Your task to perform on an android device: choose inbox layout in the gmail app Image 0: 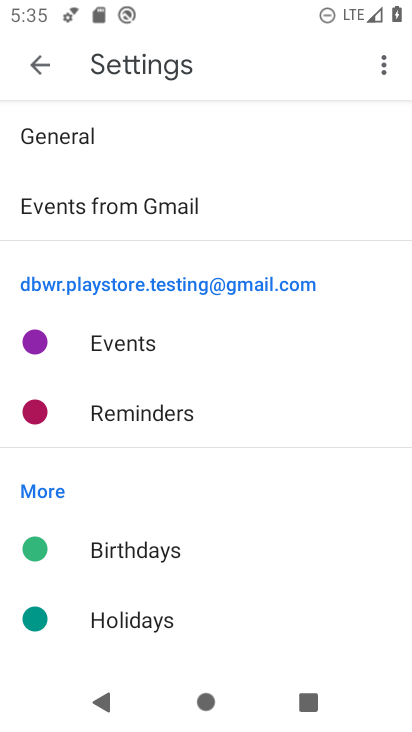
Step 0: press home button
Your task to perform on an android device: choose inbox layout in the gmail app Image 1: 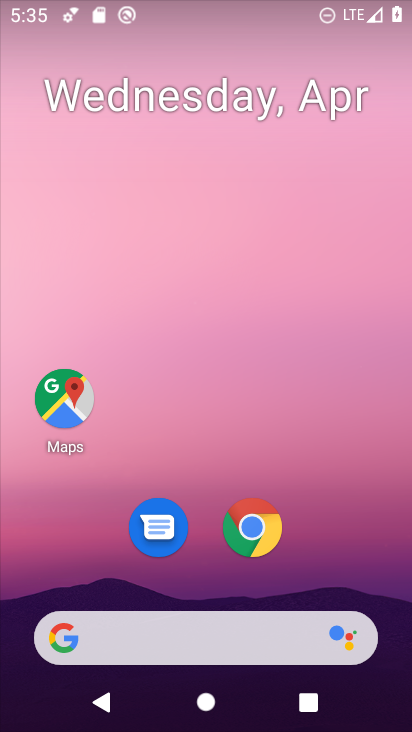
Step 1: drag from (328, 458) to (303, 4)
Your task to perform on an android device: choose inbox layout in the gmail app Image 2: 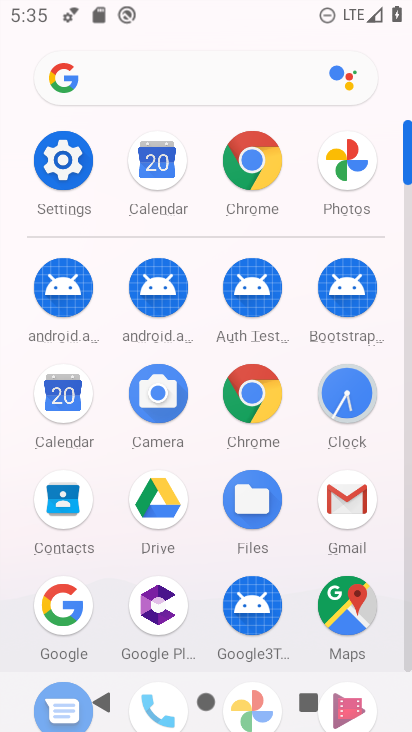
Step 2: click (345, 511)
Your task to perform on an android device: choose inbox layout in the gmail app Image 3: 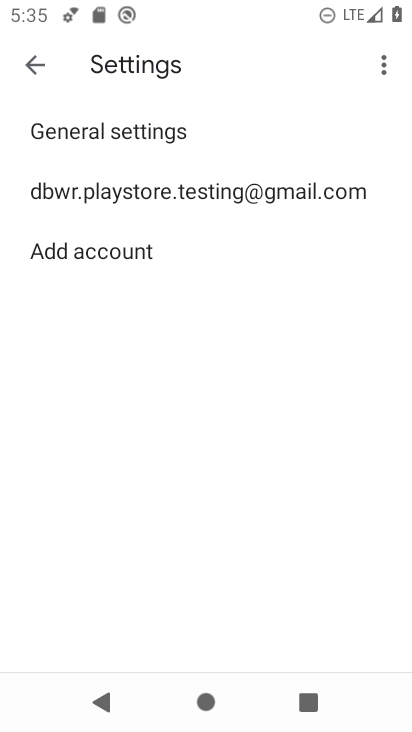
Step 3: click (102, 200)
Your task to perform on an android device: choose inbox layout in the gmail app Image 4: 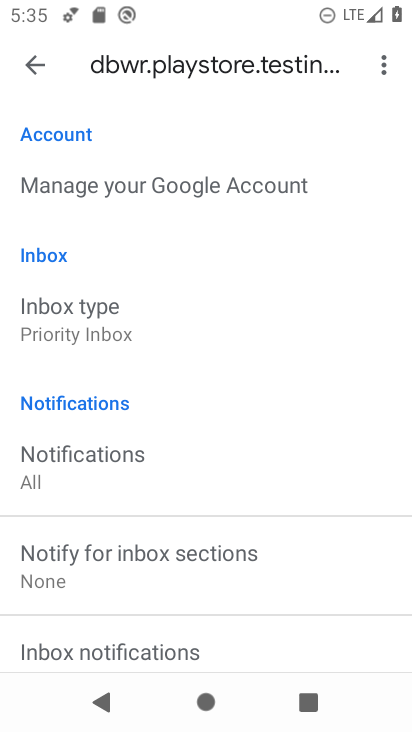
Step 4: click (76, 330)
Your task to perform on an android device: choose inbox layout in the gmail app Image 5: 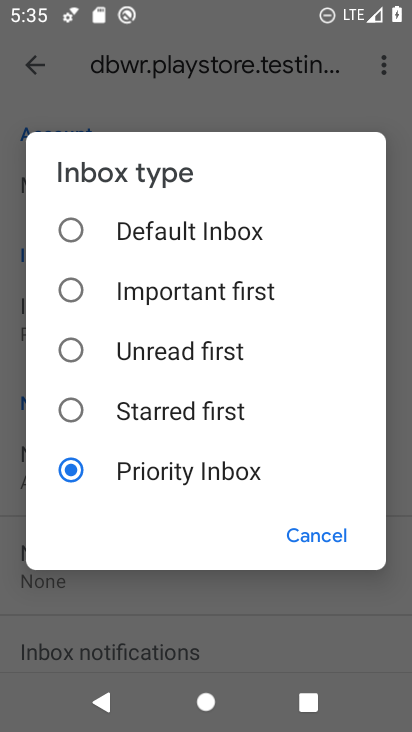
Step 5: click (73, 344)
Your task to perform on an android device: choose inbox layout in the gmail app Image 6: 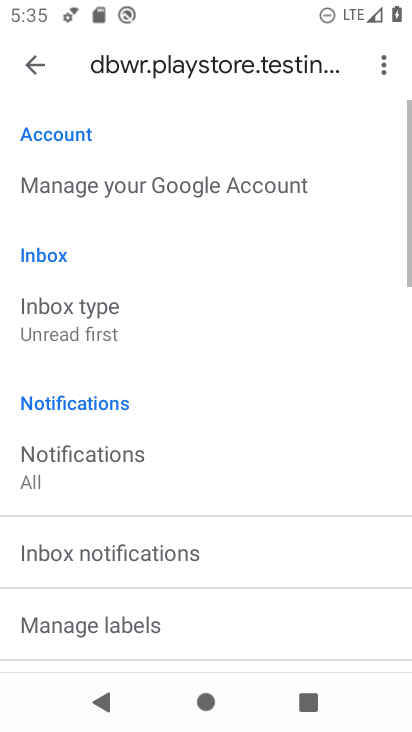
Step 6: task complete